Your task to perform on an android device: change your default location settings in chrome Image 0: 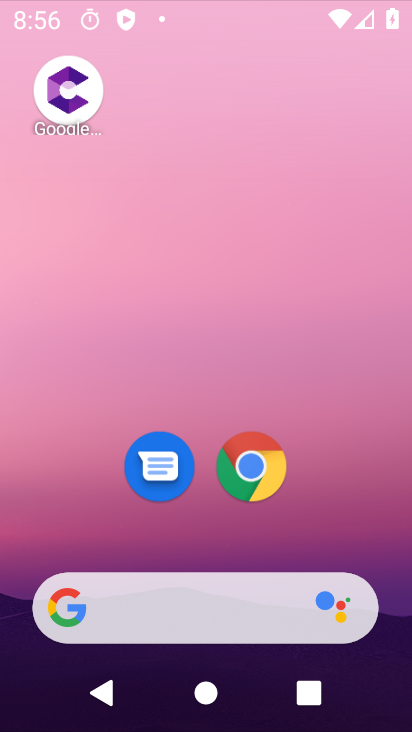
Step 0: press home button
Your task to perform on an android device: change your default location settings in chrome Image 1: 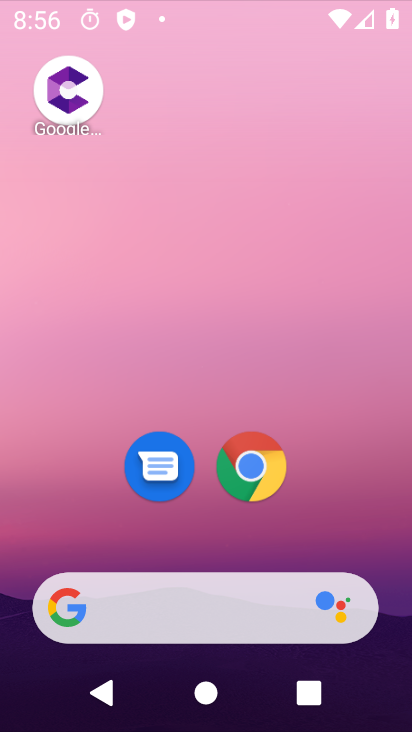
Step 1: click (147, 586)
Your task to perform on an android device: change your default location settings in chrome Image 2: 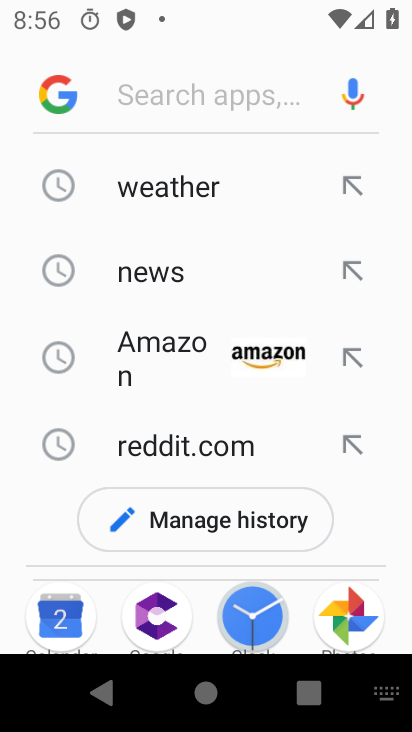
Step 2: click (68, 88)
Your task to perform on an android device: change your default location settings in chrome Image 3: 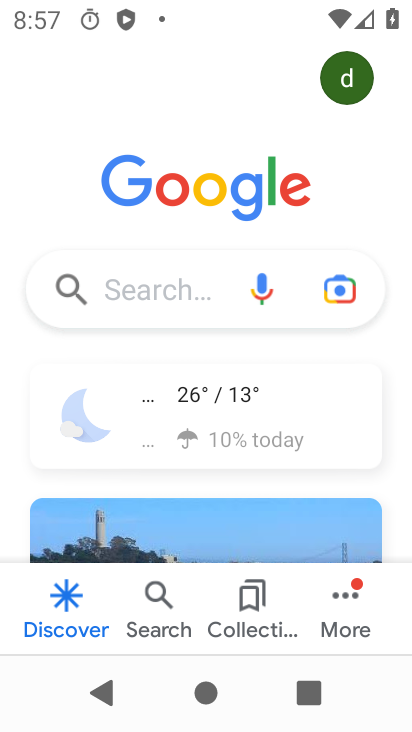
Step 3: press back button
Your task to perform on an android device: change your default location settings in chrome Image 4: 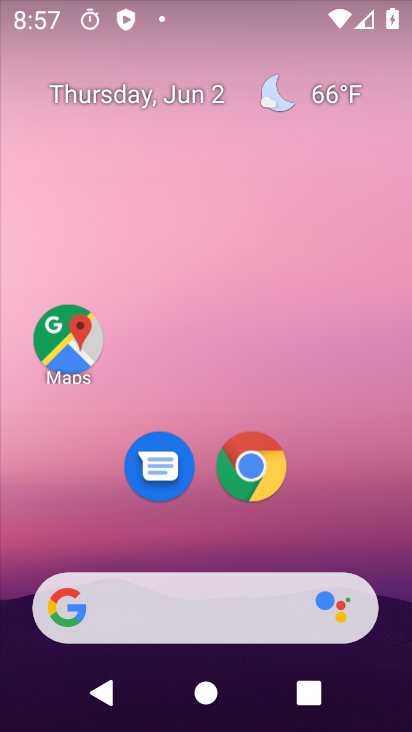
Step 4: click (246, 465)
Your task to perform on an android device: change your default location settings in chrome Image 5: 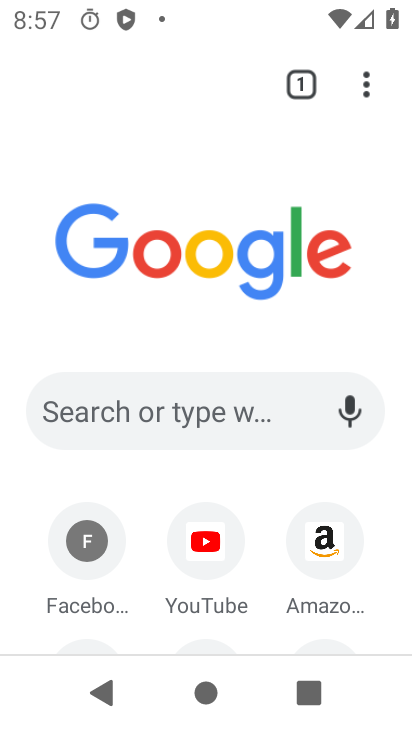
Step 5: task complete